Your task to perform on an android device: set the timer Image 0: 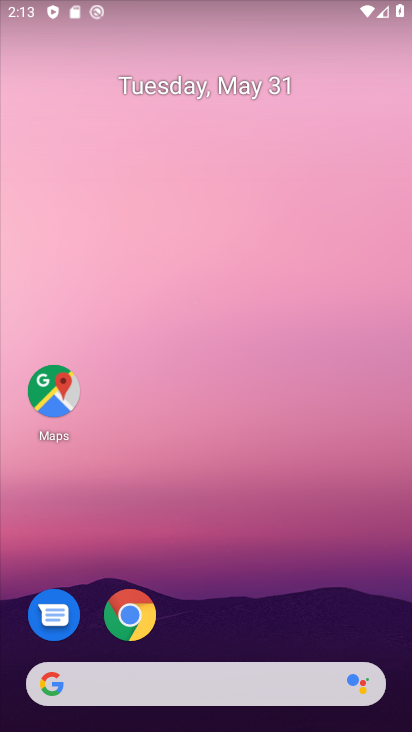
Step 0: drag from (255, 699) to (395, 702)
Your task to perform on an android device: set the timer Image 1: 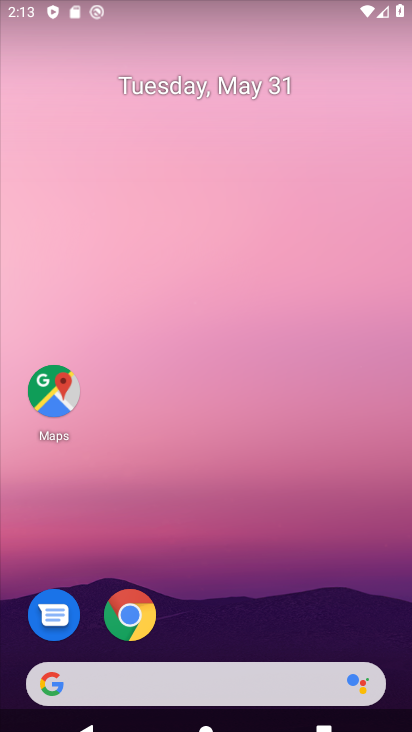
Step 1: drag from (267, 646) to (397, 130)
Your task to perform on an android device: set the timer Image 2: 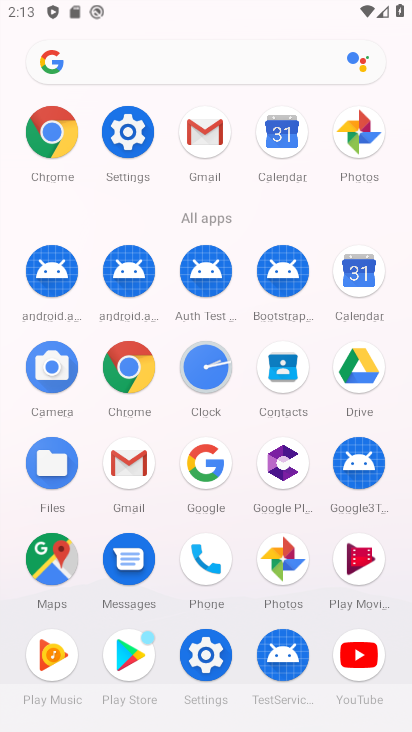
Step 2: click (198, 372)
Your task to perform on an android device: set the timer Image 3: 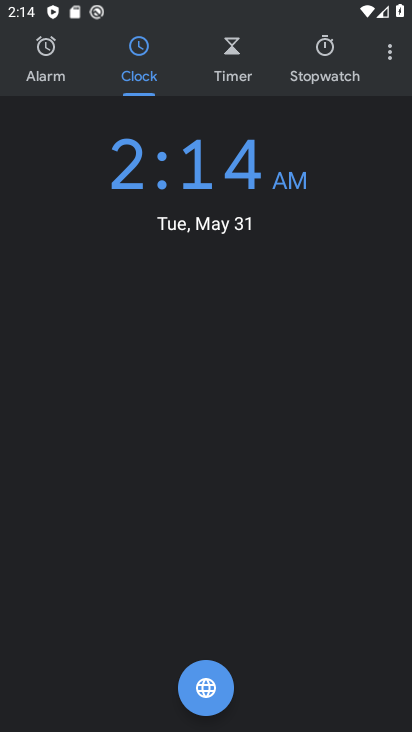
Step 3: click (229, 62)
Your task to perform on an android device: set the timer Image 4: 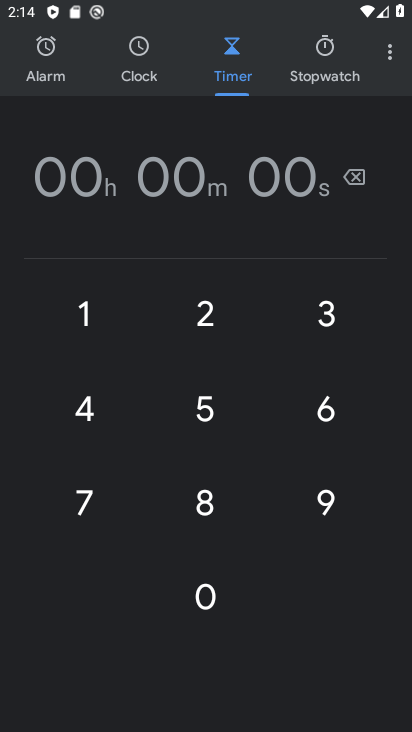
Step 4: click (203, 504)
Your task to perform on an android device: set the timer Image 5: 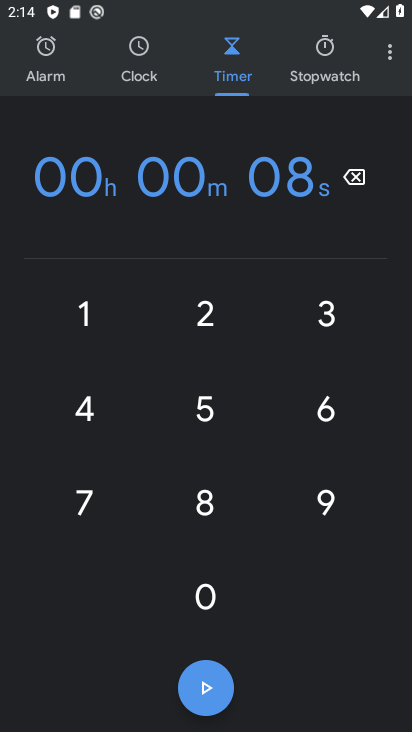
Step 5: click (211, 686)
Your task to perform on an android device: set the timer Image 6: 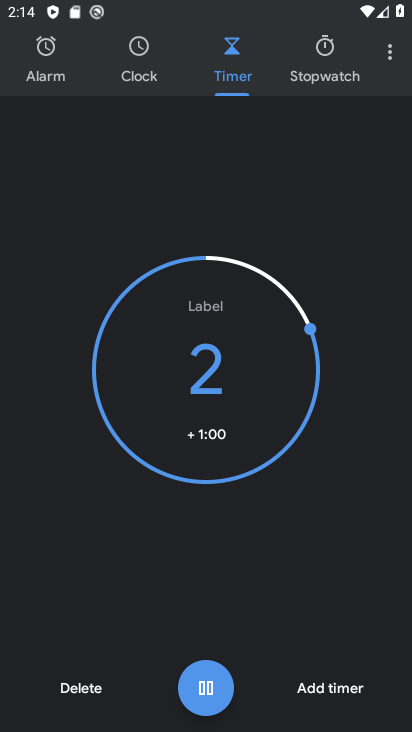
Step 6: click (197, 686)
Your task to perform on an android device: set the timer Image 7: 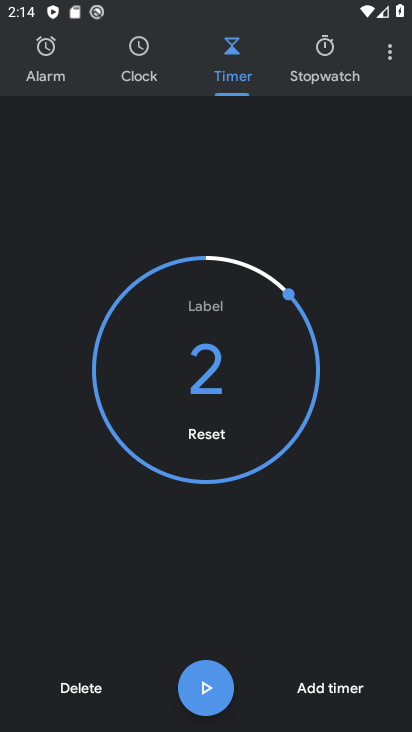
Step 7: task complete